Your task to perform on an android device: What's the weather today? Image 0: 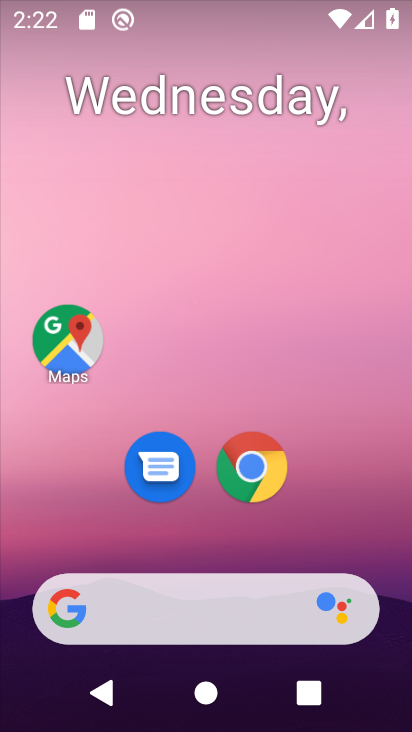
Step 0: drag from (312, 525) to (305, 313)
Your task to perform on an android device: What's the weather today? Image 1: 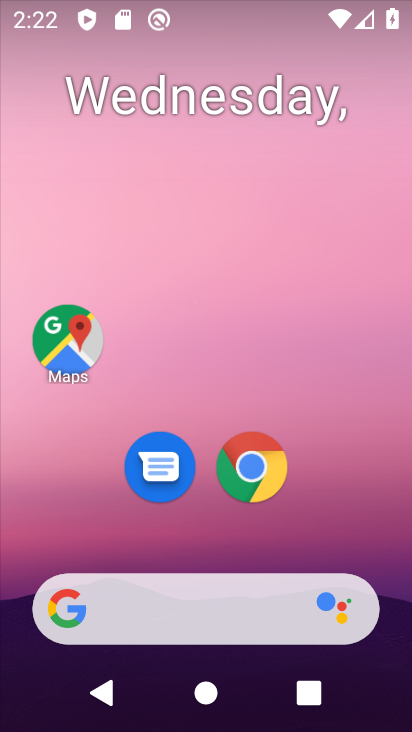
Step 1: drag from (307, 411) to (290, 216)
Your task to perform on an android device: What's the weather today? Image 2: 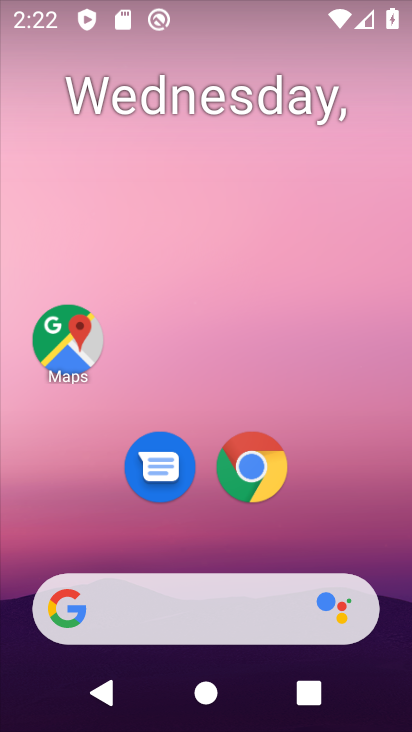
Step 2: drag from (325, 544) to (312, 117)
Your task to perform on an android device: What's the weather today? Image 3: 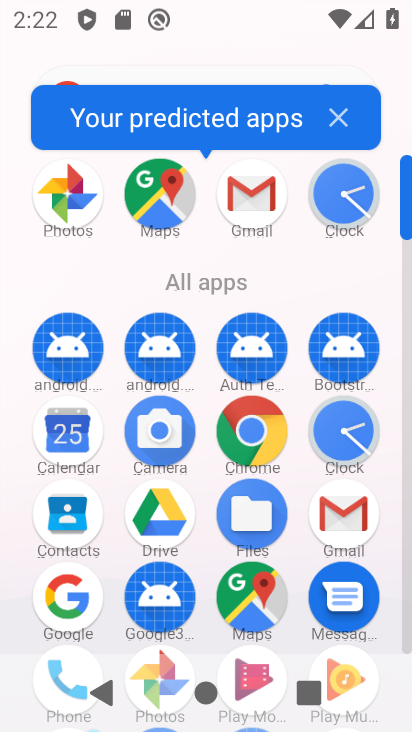
Step 3: click (59, 429)
Your task to perform on an android device: What's the weather today? Image 4: 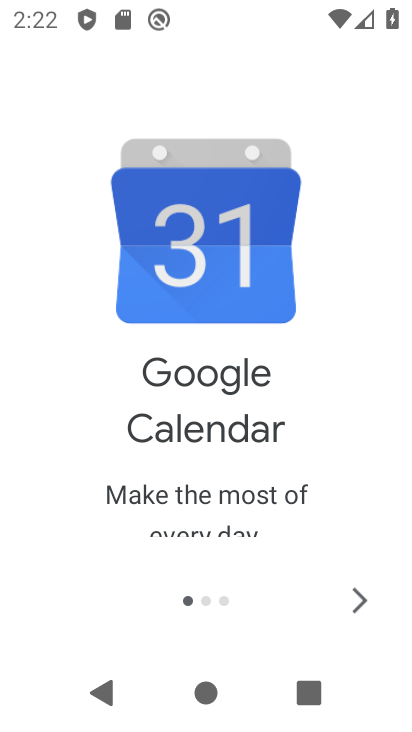
Step 4: click (363, 604)
Your task to perform on an android device: What's the weather today? Image 5: 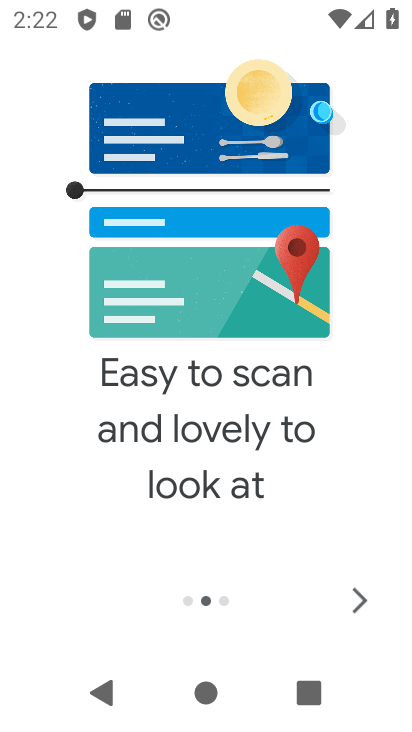
Step 5: click (363, 604)
Your task to perform on an android device: What's the weather today? Image 6: 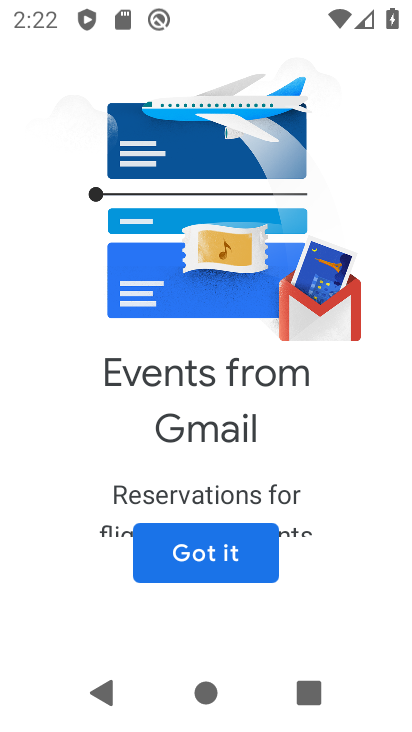
Step 6: click (363, 604)
Your task to perform on an android device: What's the weather today? Image 7: 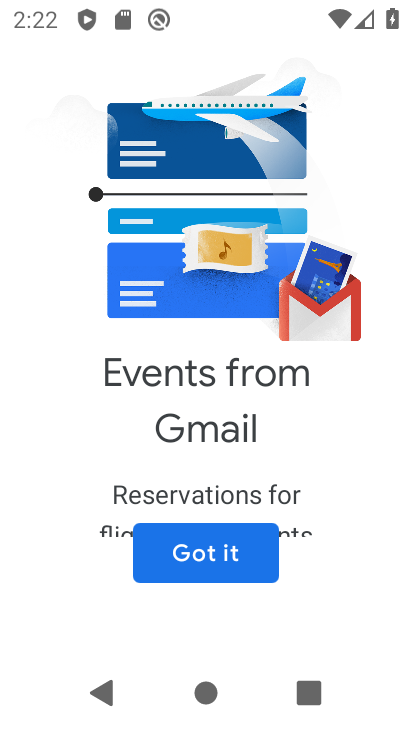
Step 7: click (265, 548)
Your task to perform on an android device: What's the weather today? Image 8: 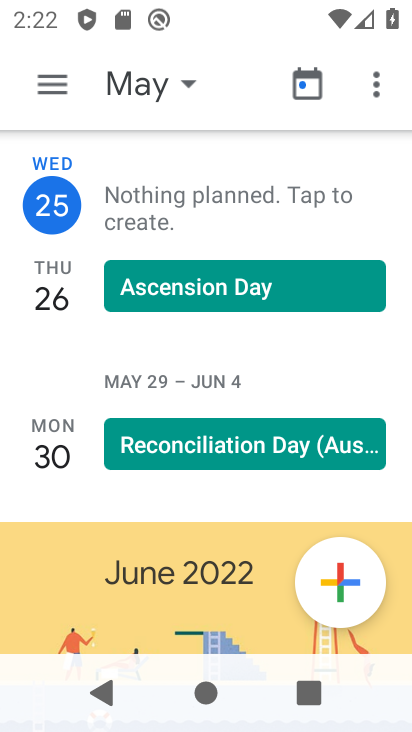
Step 8: task complete